Your task to perform on an android device: Open Youtube and go to "Your channel" Image 0: 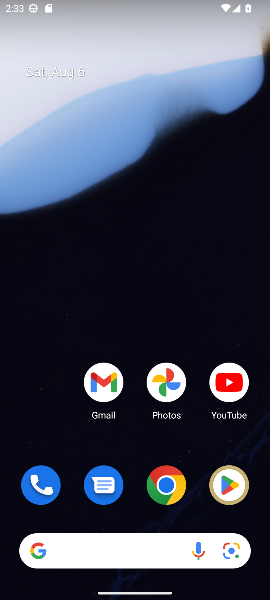
Step 0: press home button
Your task to perform on an android device: Open Youtube and go to "Your channel" Image 1: 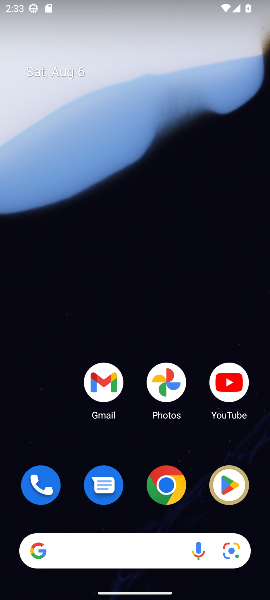
Step 1: click (226, 377)
Your task to perform on an android device: Open Youtube and go to "Your channel" Image 2: 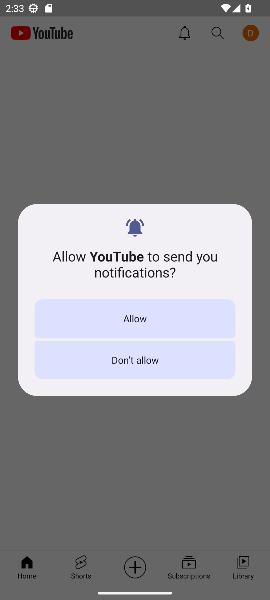
Step 2: click (126, 319)
Your task to perform on an android device: Open Youtube and go to "Your channel" Image 3: 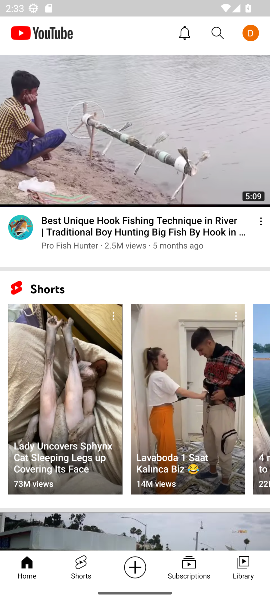
Step 3: click (246, 31)
Your task to perform on an android device: Open Youtube and go to "Your channel" Image 4: 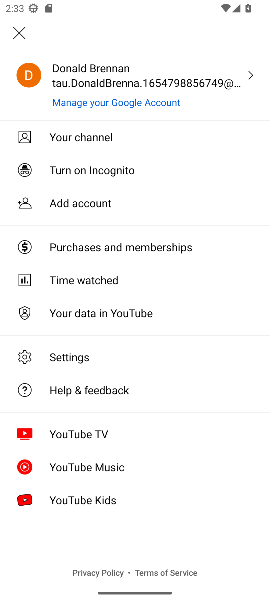
Step 4: click (70, 133)
Your task to perform on an android device: Open Youtube and go to "Your channel" Image 5: 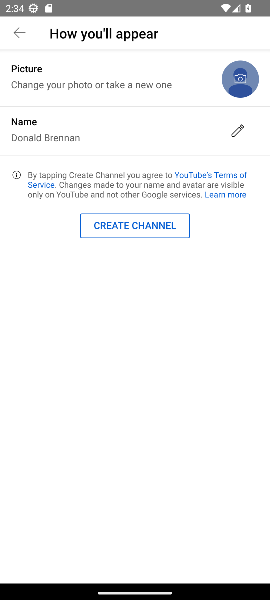
Step 5: task complete